Your task to perform on an android device: open chrome privacy settings Image 0: 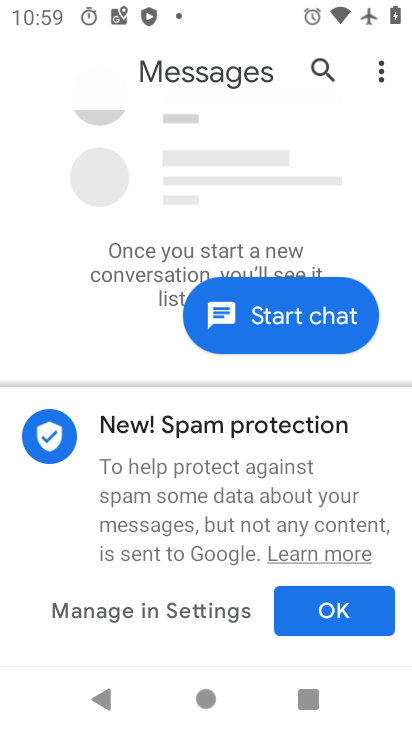
Step 0: press back button
Your task to perform on an android device: open chrome privacy settings Image 1: 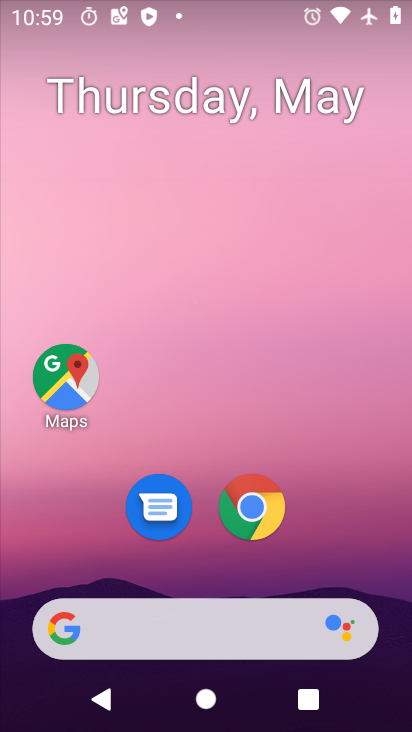
Step 1: drag from (319, 516) to (274, 44)
Your task to perform on an android device: open chrome privacy settings Image 2: 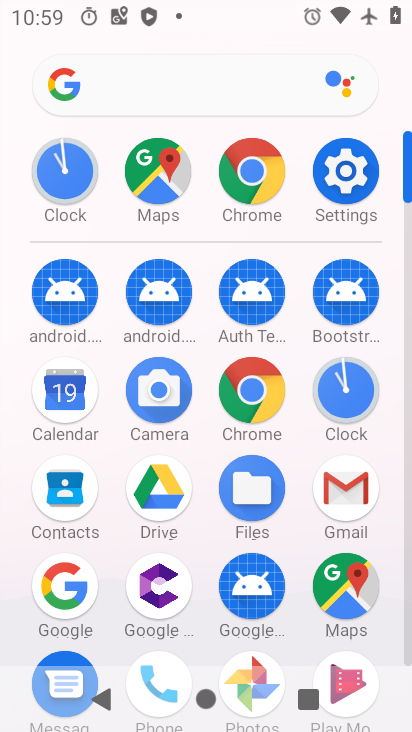
Step 2: click (251, 384)
Your task to perform on an android device: open chrome privacy settings Image 3: 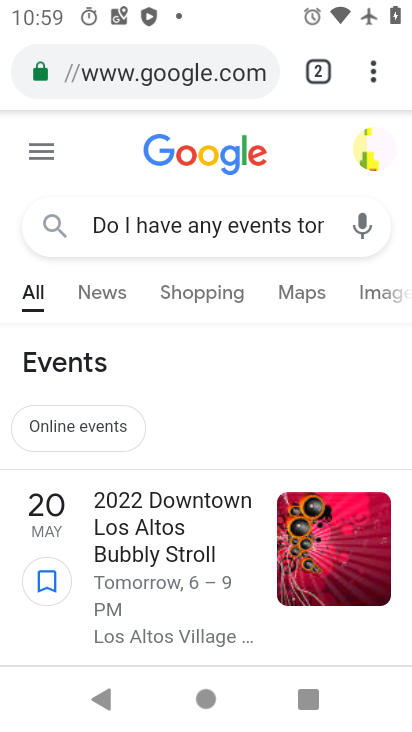
Step 3: drag from (371, 66) to (101, 500)
Your task to perform on an android device: open chrome privacy settings Image 4: 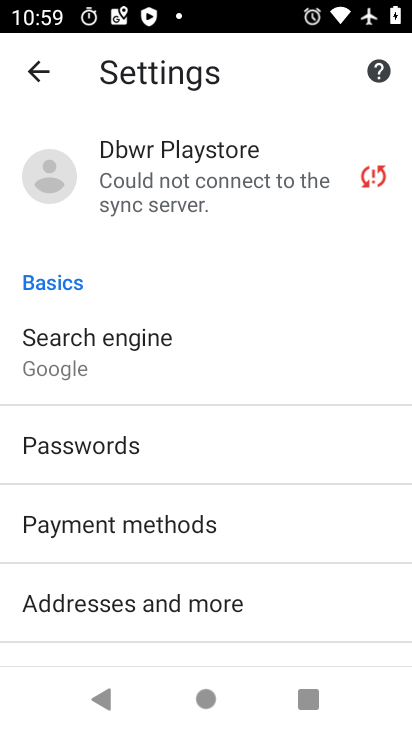
Step 4: drag from (256, 561) to (250, 189)
Your task to perform on an android device: open chrome privacy settings Image 5: 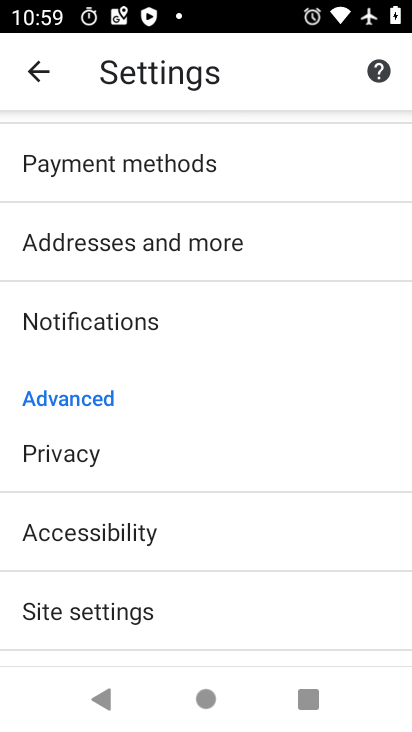
Step 5: click (98, 441)
Your task to perform on an android device: open chrome privacy settings Image 6: 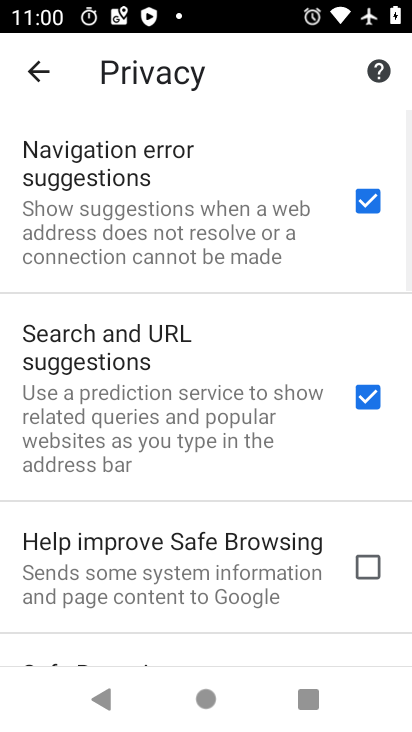
Step 6: task complete